Your task to perform on an android device: toggle translation in the chrome app Image 0: 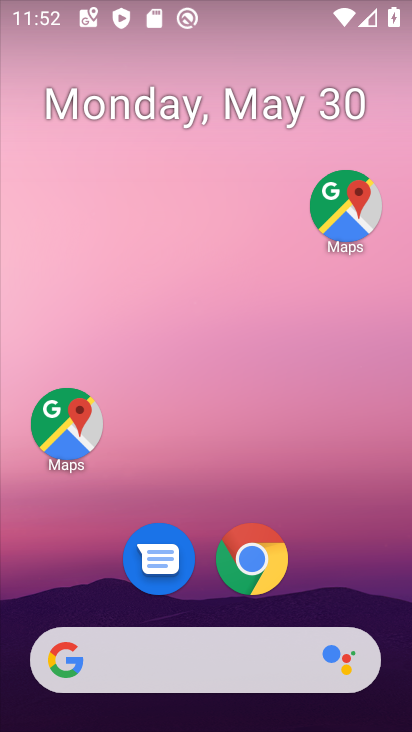
Step 0: click (252, 561)
Your task to perform on an android device: toggle translation in the chrome app Image 1: 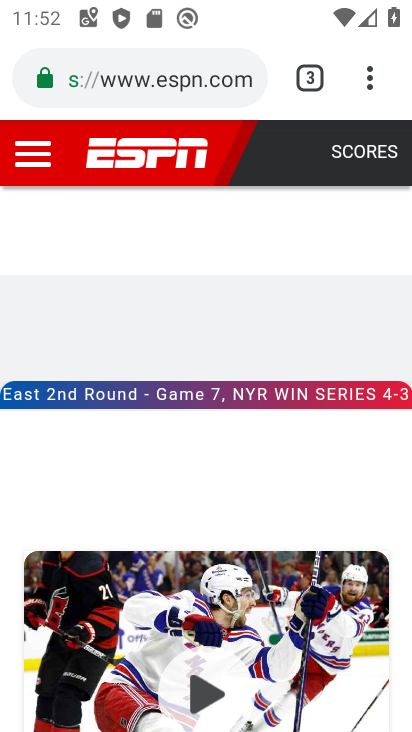
Step 1: drag from (381, 73) to (256, 623)
Your task to perform on an android device: toggle translation in the chrome app Image 2: 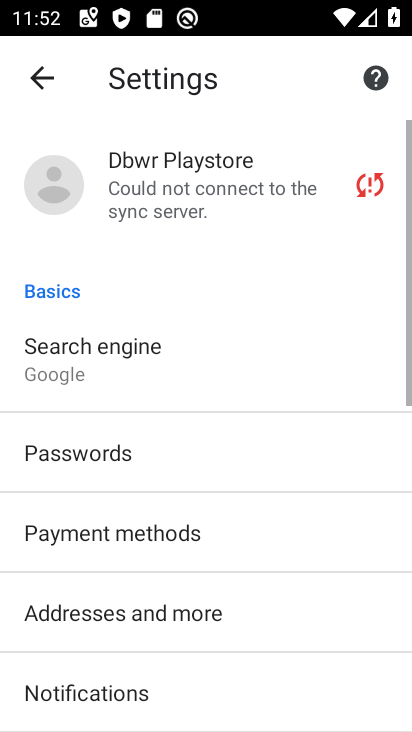
Step 2: drag from (169, 575) to (219, 80)
Your task to perform on an android device: toggle translation in the chrome app Image 3: 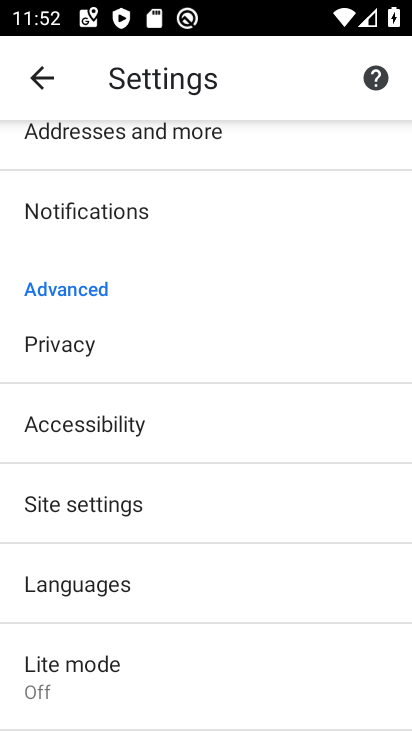
Step 3: drag from (200, 557) to (280, 274)
Your task to perform on an android device: toggle translation in the chrome app Image 4: 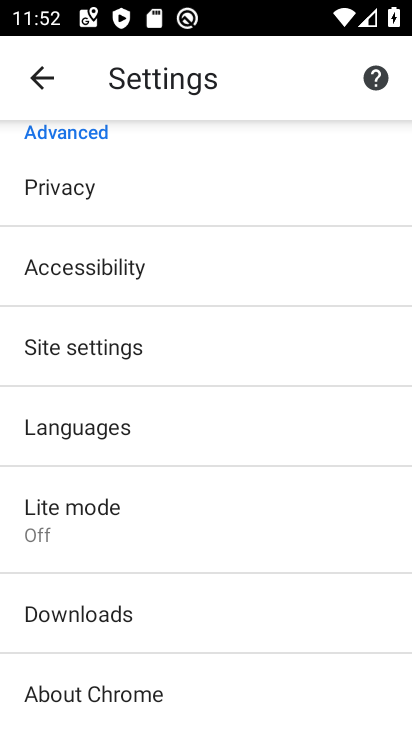
Step 4: click (153, 417)
Your task to perform on an android device: toggle translation in the chrome app Image 5: 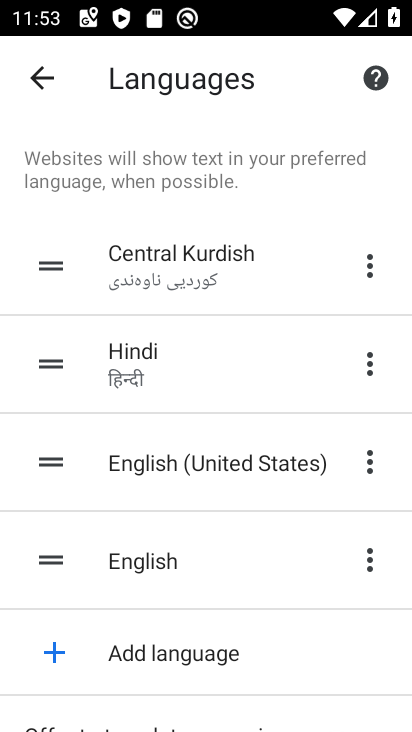
Step 5: drag from (218, 632) to (237, 273)
Your task to perform on an android device: toggle translation in the chrome app Image 6: 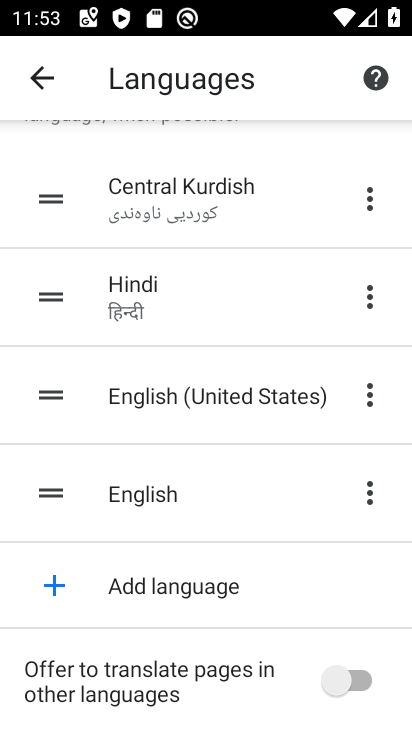
Step 6: click (339, 670)
Your task to perform on an android device: toggle translation in the chrome app Image 7: 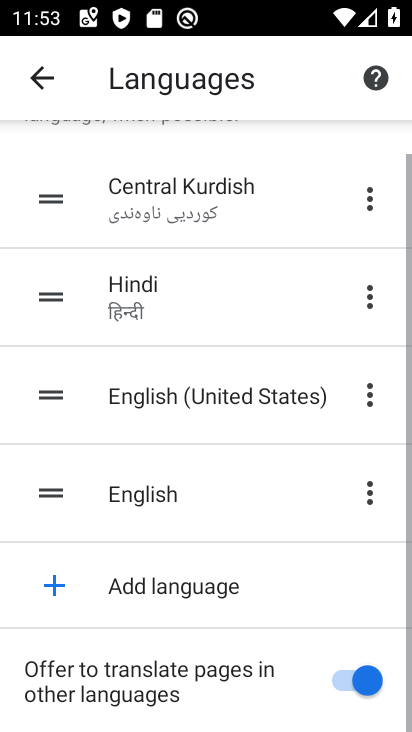
Step 7: task complete